Your task to perform on an android device: What's on my calendar tomorrow? Image 0: 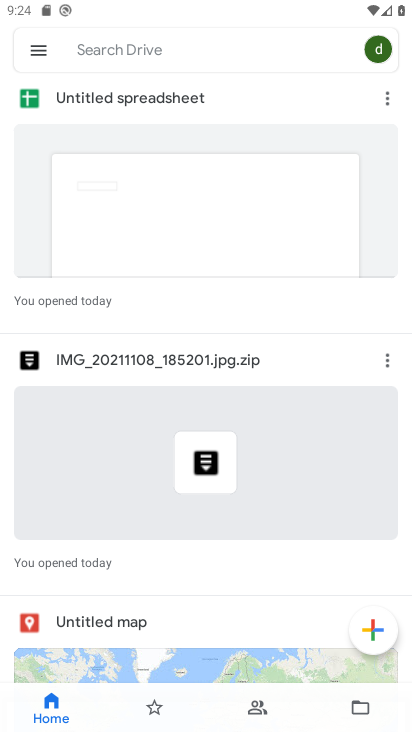
Step 0: press home button
Your task to perform on an android device: What's on my calendar tomorrow? Image 1: 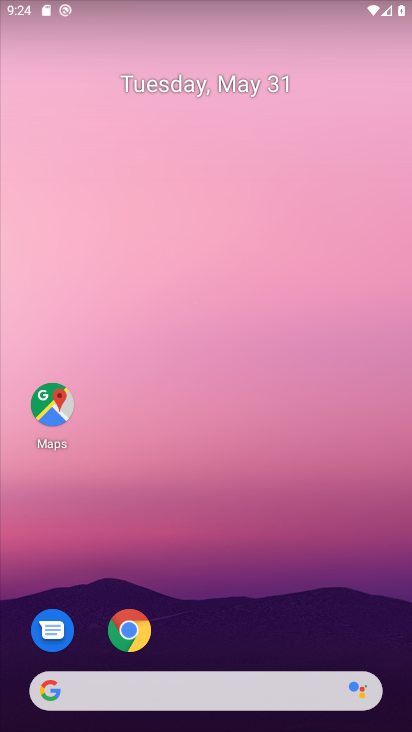
Step 1: drag from (218, 640) to (186, 248)
Your task to perform on an android device: What's on my calendar tomorrow? Image 2: 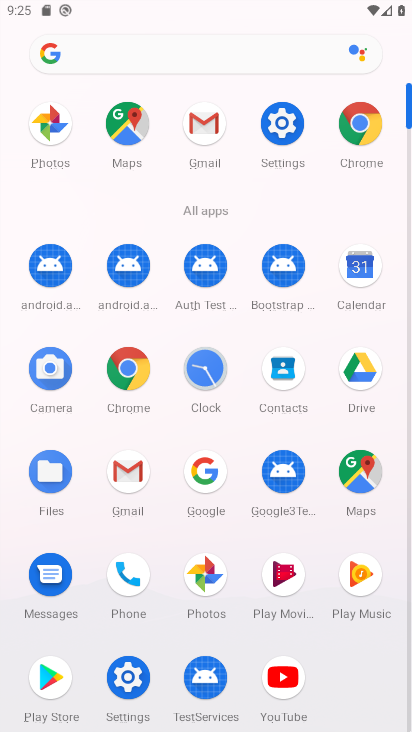
Step 2: click (353, 268)
Your task to perform on an android device: What's on my calendar tomorrow? Image 3: 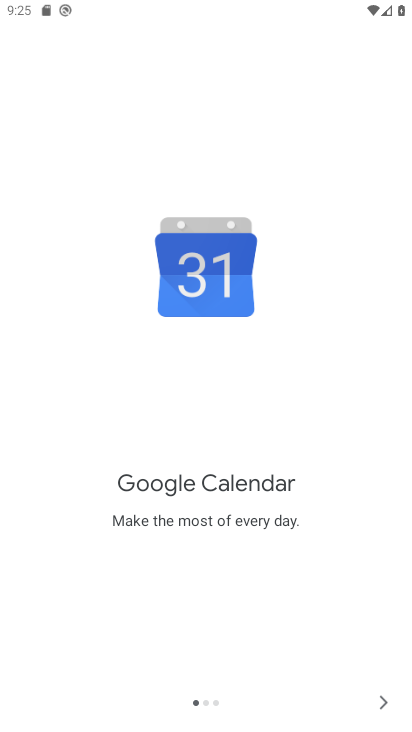
Step 3: click (372, 697)
Your task to perform on an android device: What's on my calendar tomorrow? Image 4: 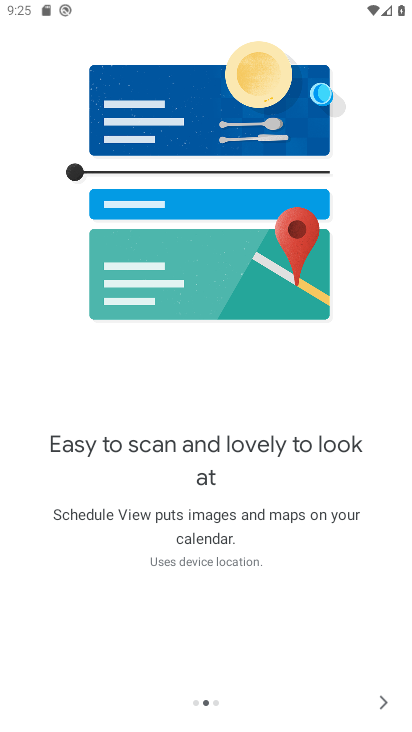
Step 4: click (372, 697)
Your task to perform on an android device: What's on my calendar tomorrow? Image 5: 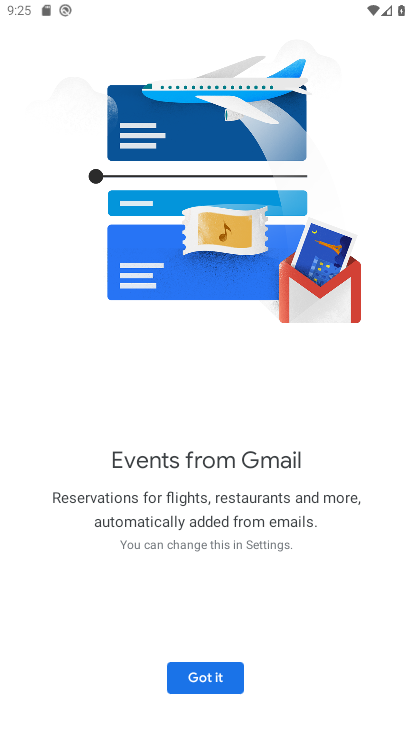
Step 5: click (372, 697)
Your task to perform on an android device: What's on my calendar tomorrow? Image 6: 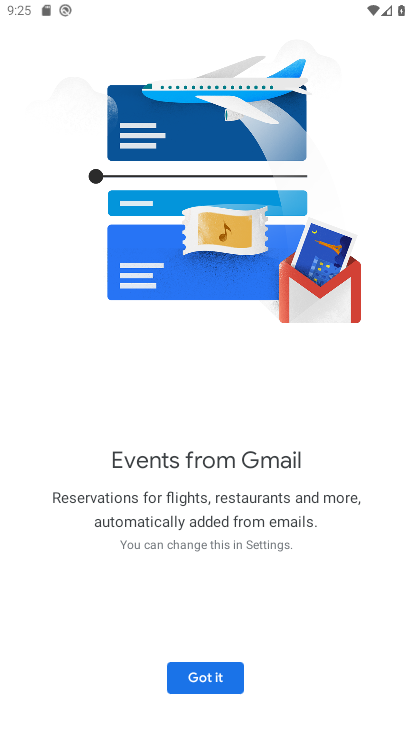
Step 6: click (346, 681)
Your task to perform on an android device: What's on my calendar tomorrow? Image 7: 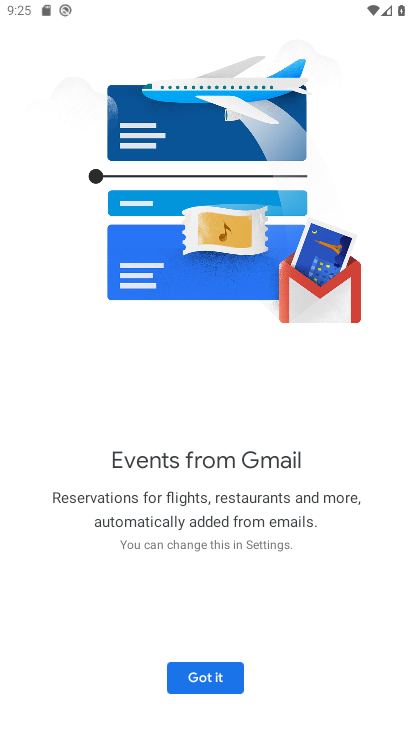
Step 7: click (210, 682)
Your task to perform on an android device: What's on my calendar tomorrow? Image 8: 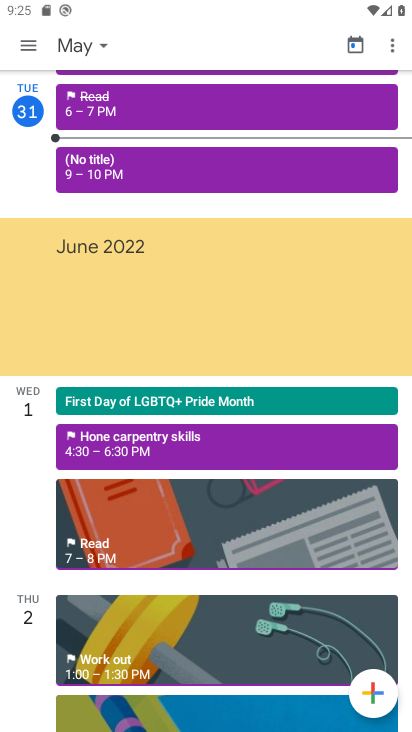
Step 8: click (72, 55)
Your task to perform on an android device: What's on my calendar tomorrow? Image 9: 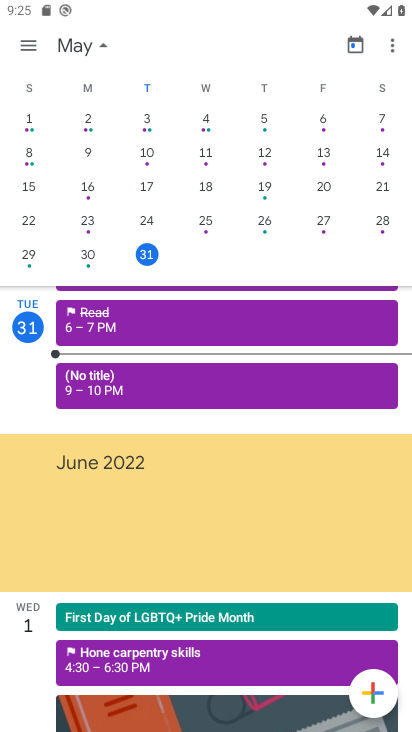
Step 9: drag from (372, 194) to (27, 183)
Your task to perform on an android device: What's on my calendar tomorrow? Image 10: 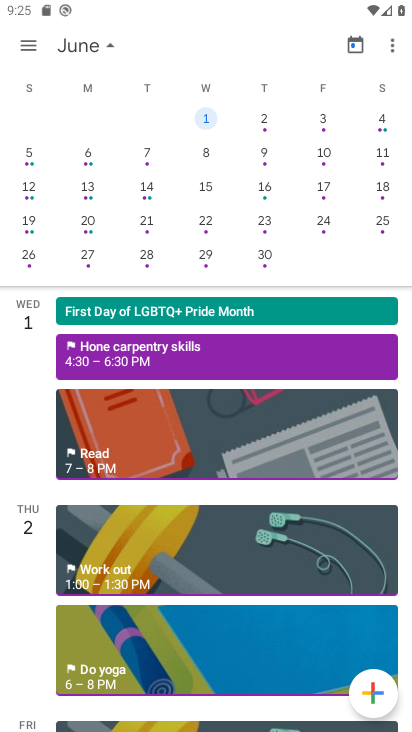
Step 10: click (269, 121)
Your task to perform on an android device: What's on my calendar tomorrow? Image 11: 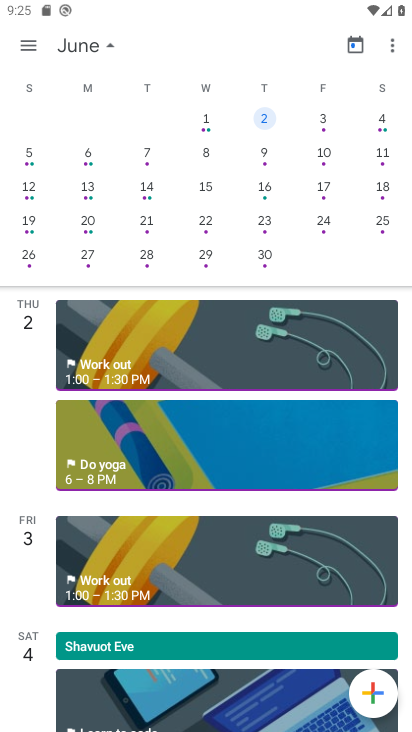
Step 11: click (84, 33)
Your task to perform on an android device: What's on my calendar tomorrow? Image 12: 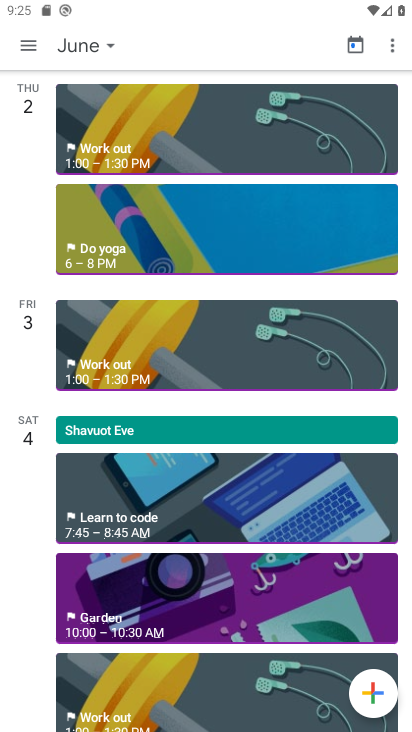
Step 12: task complete